Your task to perform on an android device: Open accessibility settings Image 0: 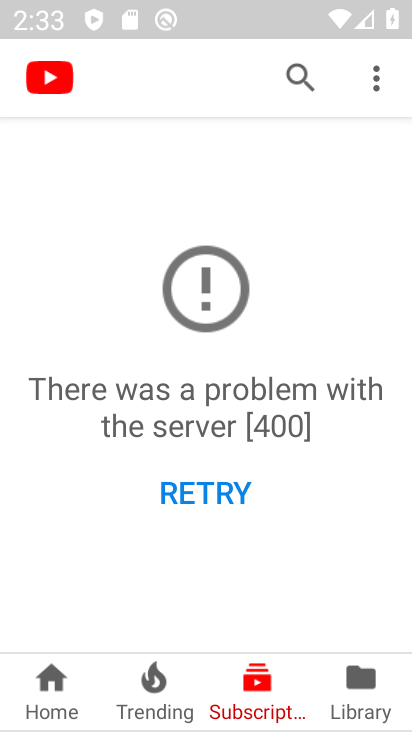
Step 0: press home button
Your task to perform on an android device: Open accessibility settings Image 1: 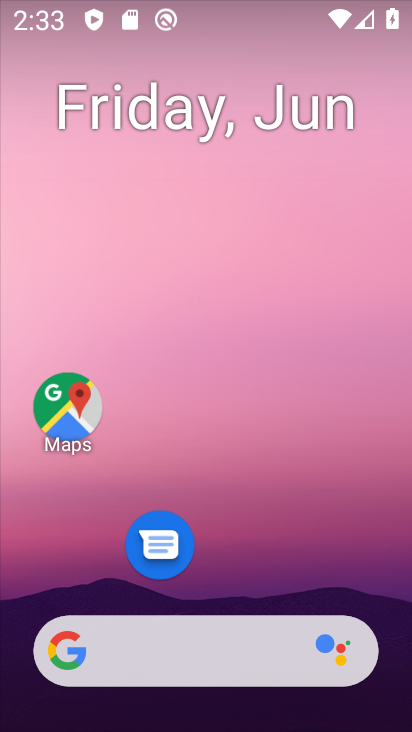
Step 1: drag from (246, 590) to (301, 72)
Your task to perform on an android device: Open accessibility settings Image 2: 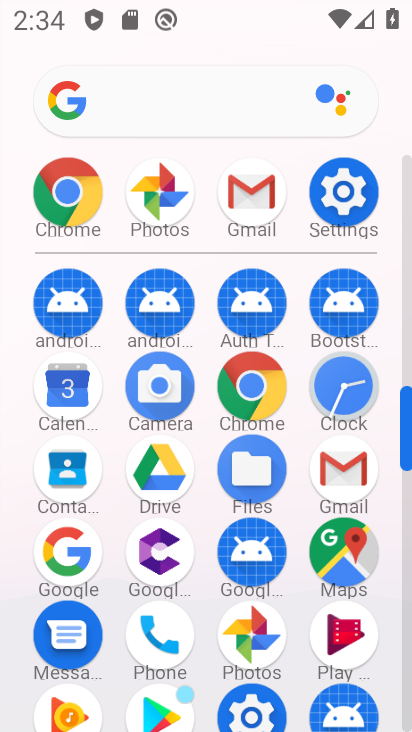
Step 2: click (347, 202)
Your task to perform on an android device: Open accessibility settings Image 3: 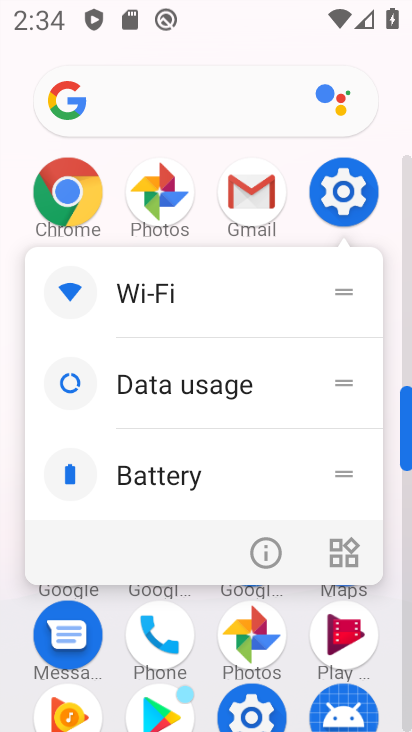
Step 3: click (344, 207)
Your task to perform on an android device: Open accessibility settings Image 4: 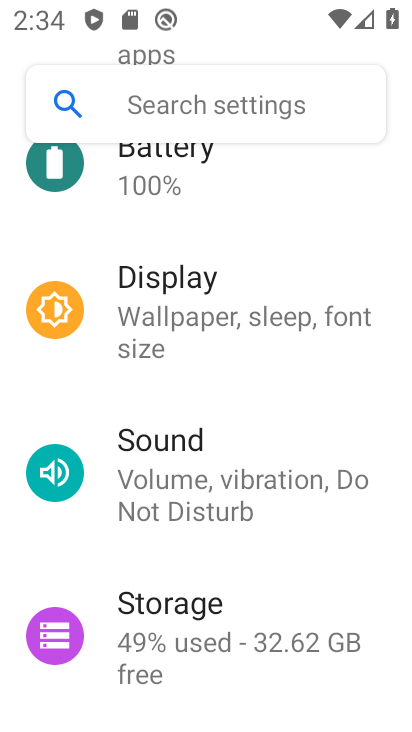
Step 4: drag from (246, 453) to (262, 248)
Your task to perform on an android device: Open accessibility settings Image 5: 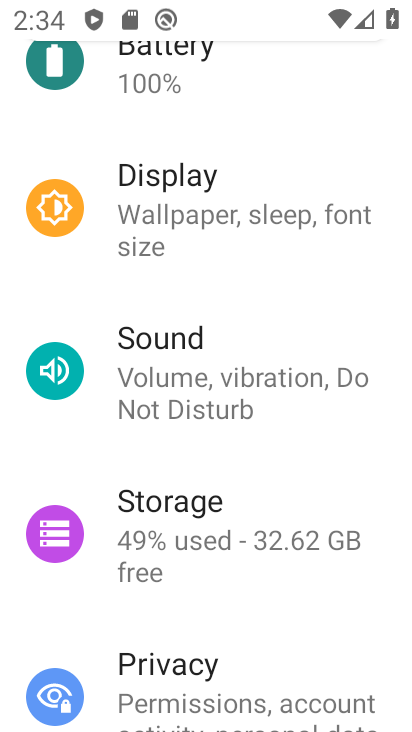
Step 5: drag from (224, 581) to (261, 177)
Your task to perform on an android device: Open accessibility settings Image 6: 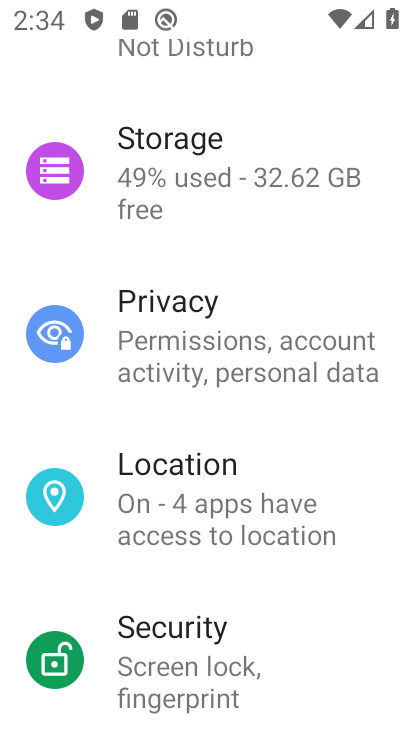
Step 6: drag from (240, 604) to (271, 94)
Your task to perform on an android device: Open accessibility settings Image 7: 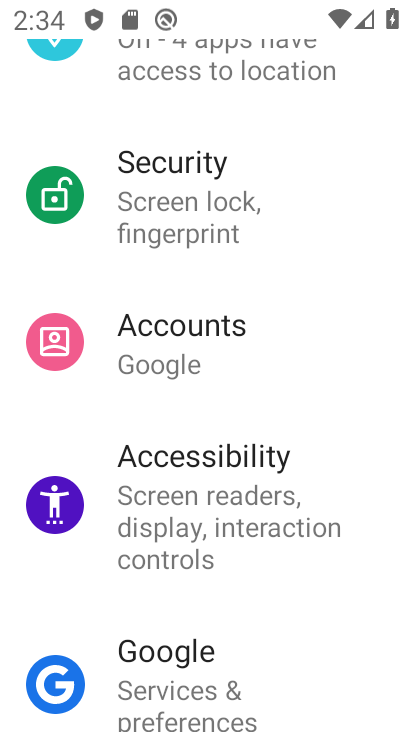
Step 7: click (200, 495)
Your task to perform on an android device: Open accessibility settings Image 8: 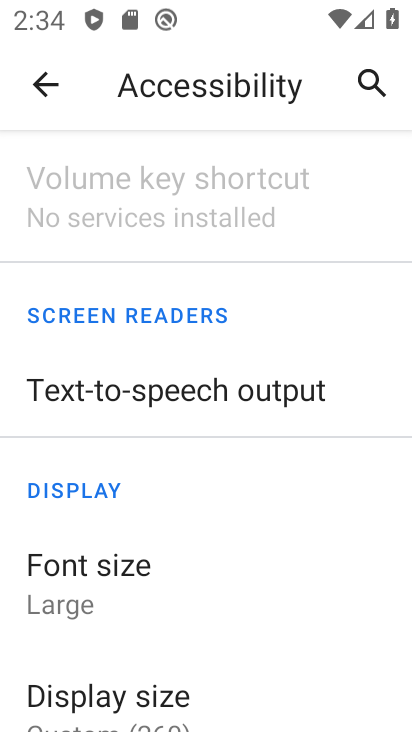
Step 8: click (234, 501)
Your task to perform on an android device: Open accessibility settings Image 9: 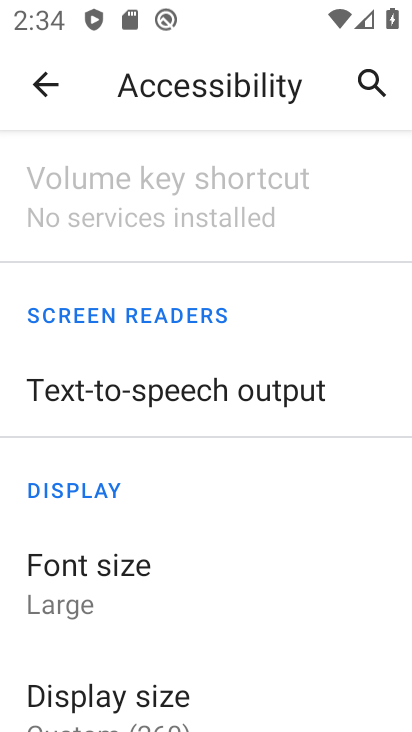
Step 9: task complete